Your task to perform on an android device: Go to network settings Image 0: 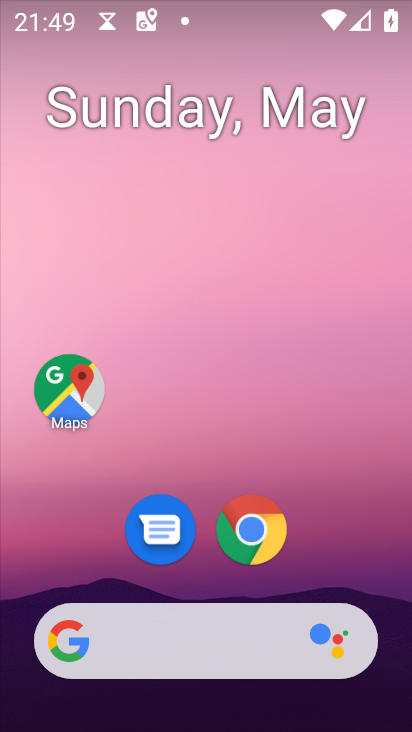
Step 0: drag from (321, 511) to (344, 18)
Your task to perform on an android device: Go to network settings Image 1: 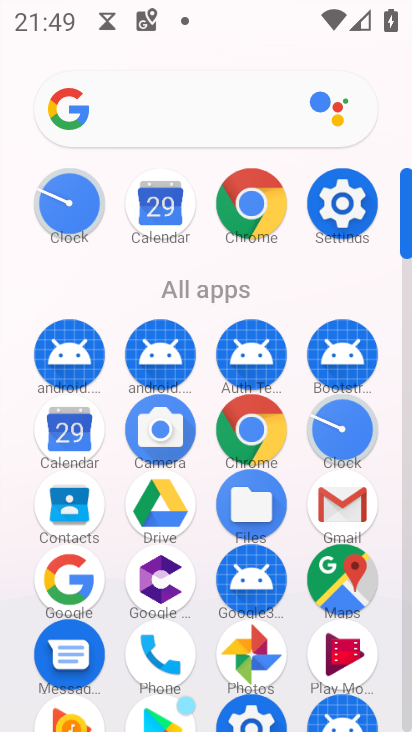
Step 1: click (345, 197)
Your task to perform on an android device: Go to network settings Image 2: 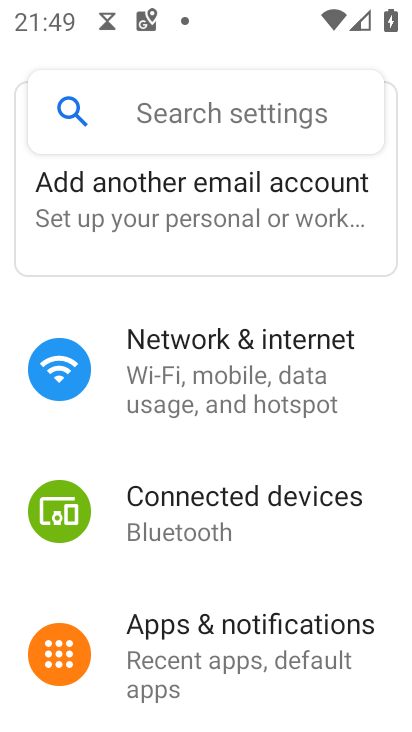
Step 2: click (185, 378)
Your task to perform on an android device: Go to network settings Image 3: 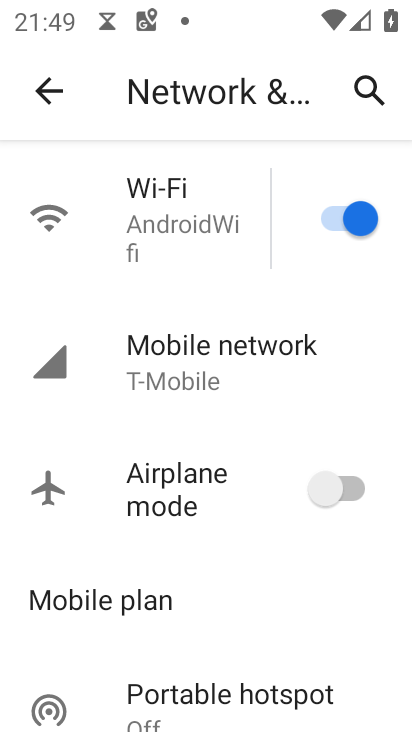
Step 3: click (181, 345)
Your task to perform on an android device: Go to network settings Image 4: 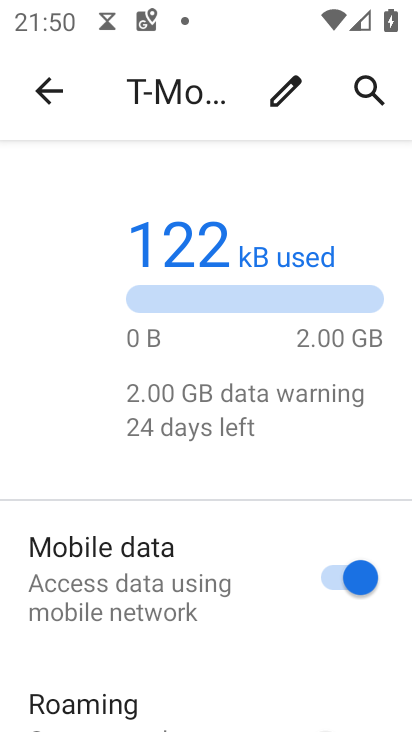
Step 4: task complete